Your task to perform on an android device: Search for seafood restaurants on Google Maps Image 0: 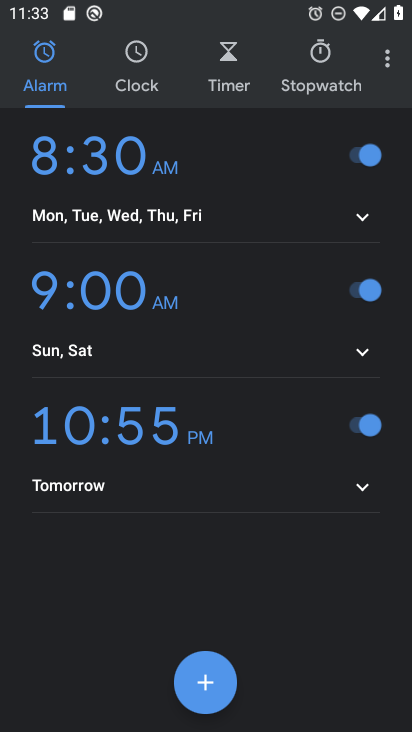
Step 0: press home button
Your task to perform on an android device: Search for seafood restaurants on Google Maps Image 1: 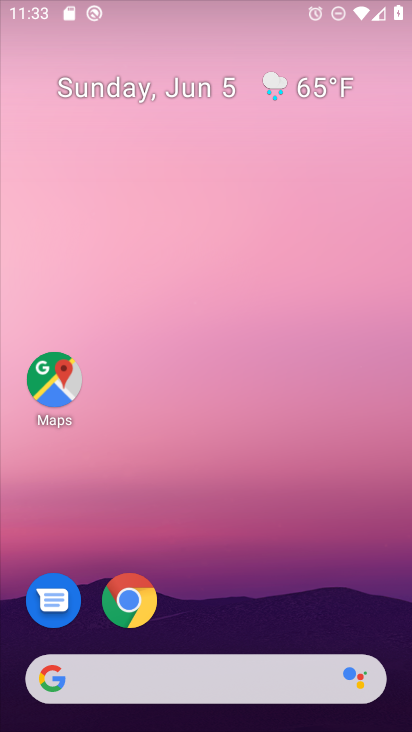
Step 1: drag from (394, 612) to (308, 65)
Your task to perform on an android device: Search for seafood restaurants on Google Maps Image 2: 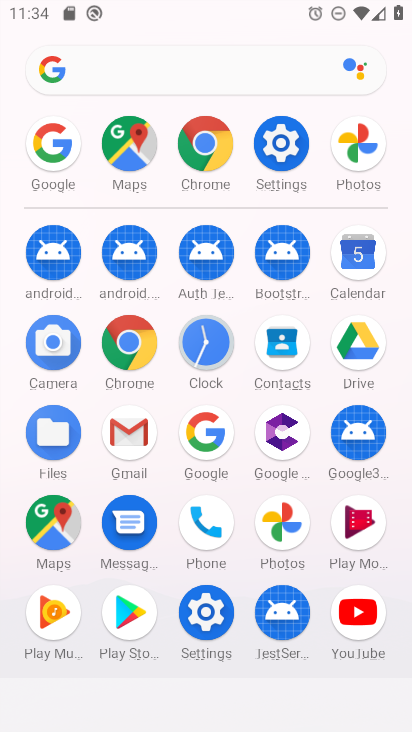
Step 2: click (67, 518)
Your task to perform on an android device: Search for seafood restaurants on Google Maps Image 3: 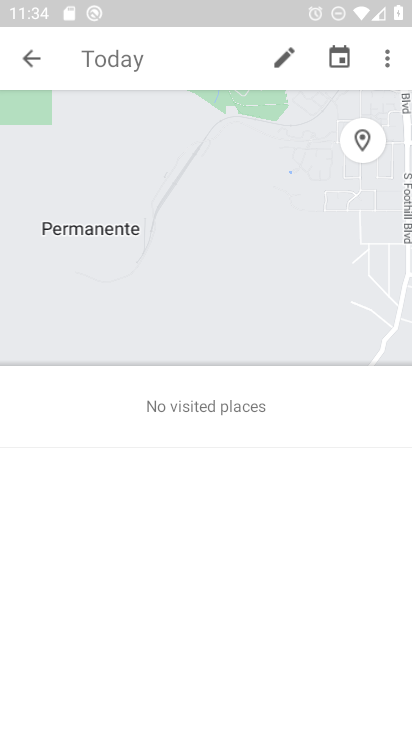
Step 3: press back button
Your task to perform on an android device: Search for seafood restaurants on Google Maps Image 4: 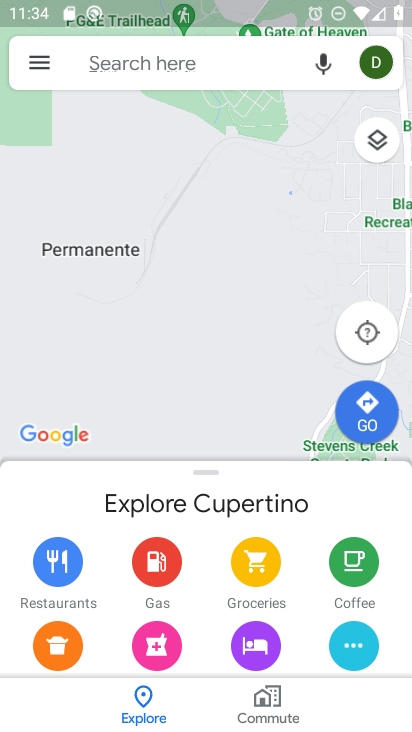
Step 4: click (173, 69)
Your task to perform on an android device: Search for seafood restaurants on Google Maps Image 5: 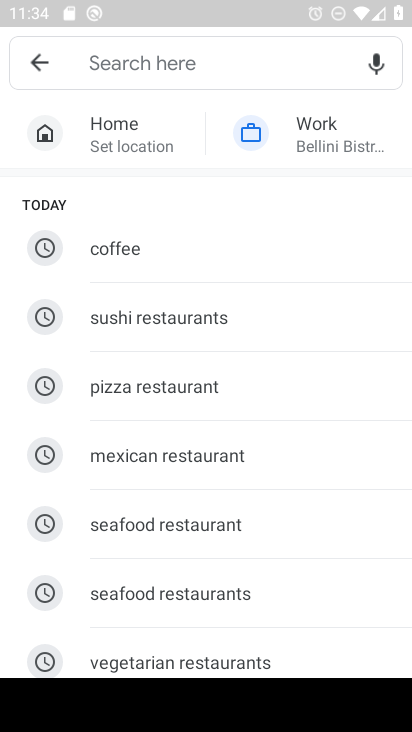
Step 5: click (204, 597)
Your task to perform on an android device: Search for seafood restaurants on Google Maps Image 6: 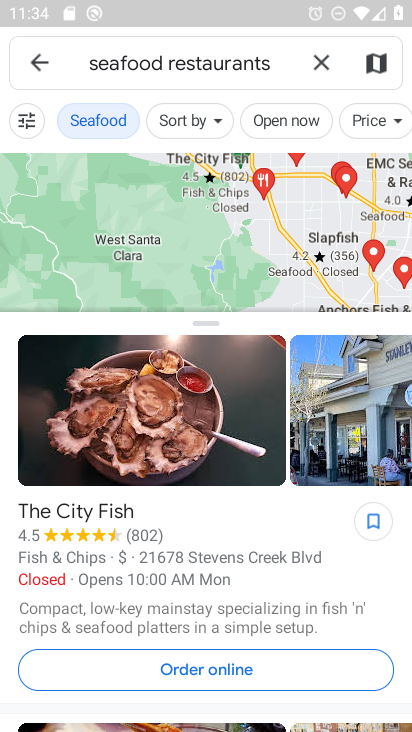
Step 6: task complete